Your task to perform on an android device: Go to notification settings Image 0: 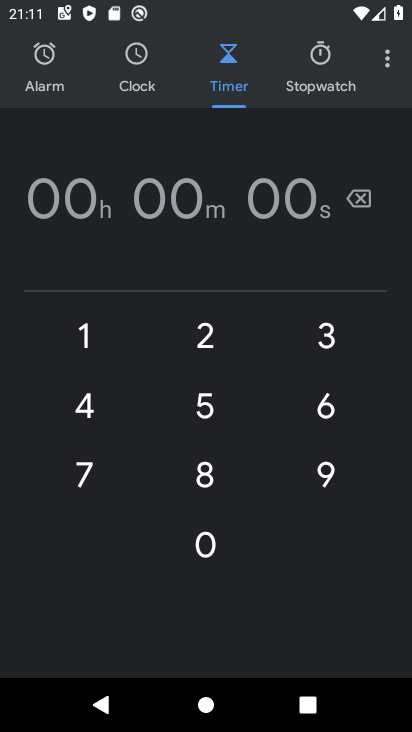
Step 0: press home button
Your task to perform on an android device: Go to notification settings Image 1: 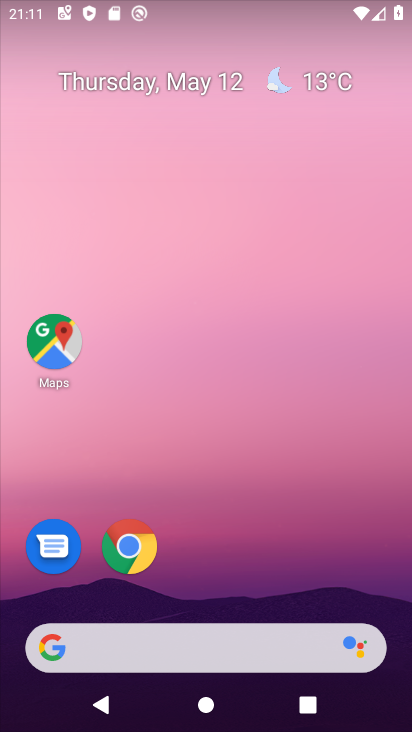
Step 1: drag from (275, 575) to (288, 127)
Your task to perform on an android device: Go to notification settings Image 2: 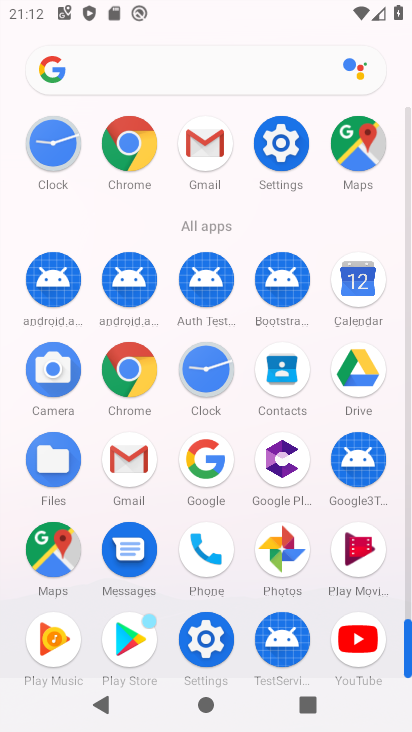
Step 2: click (271, 137)
Your task to perform on an android device: Go to notification settings Image 3: 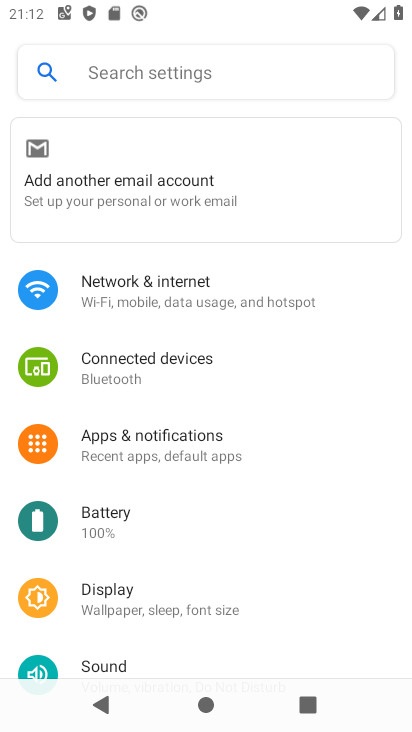
Step 3: click (192, 447)
Your task to perform on an android device: Go to notification settings Image 4: 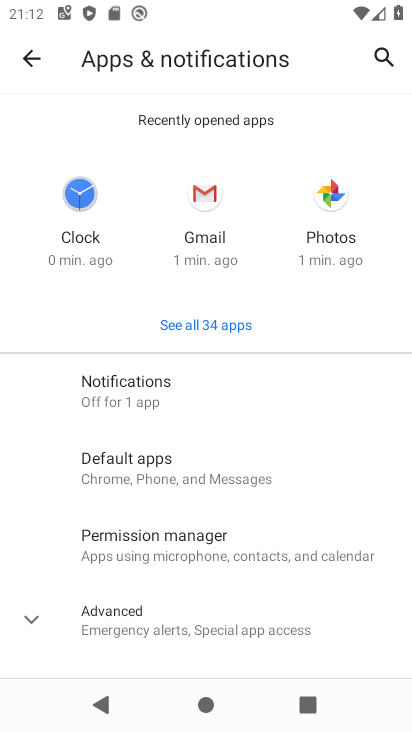
Step 4: click (157, 386)
Your task to perform on an android device: Go to notification settings Image 5: 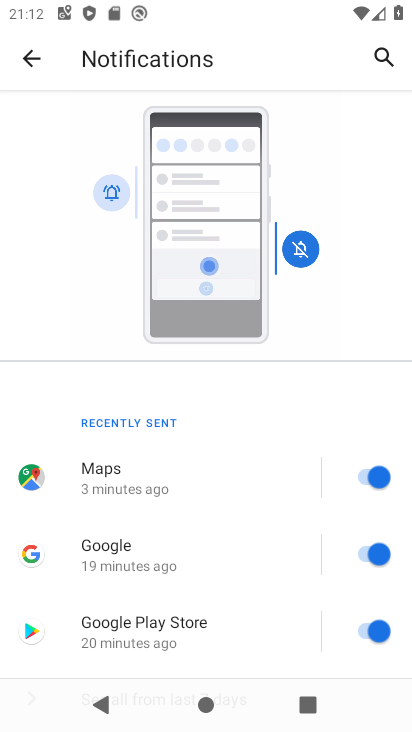
Step 5: task complete